Your task to perform on an android device: check google app version Image 0: 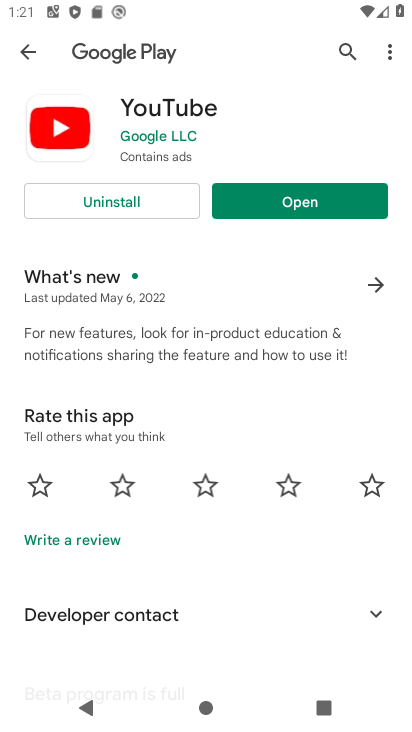
Step 0: press home button
Your task to perform on an android device: check google app version Image 1: 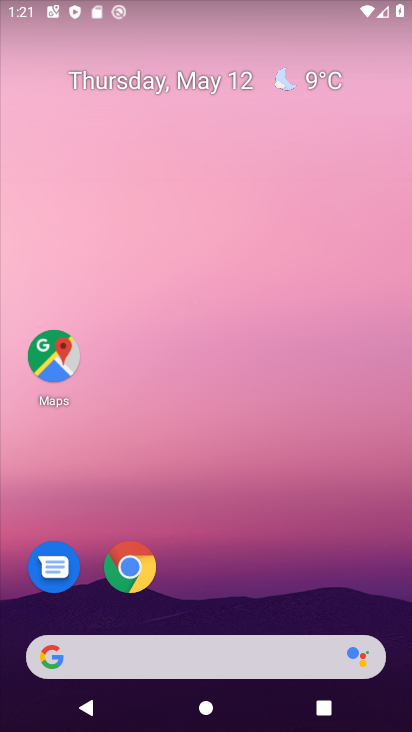
Step 1: drag from (211, 618) to (207, 50)
Your task to perform on an android device: check google app version Image 2: 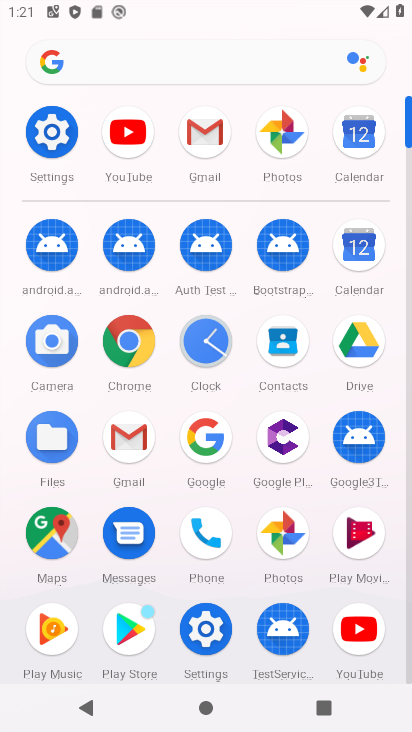
Step 2: click (205, 428)
Your task to perform on an android device: check google app version Image 3: 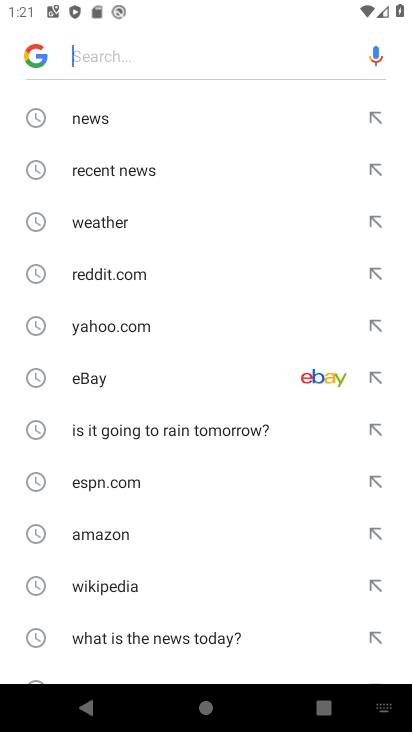
Step 3: task complete